Your task to perform on an android device: Check the settings for the Amazon Music app Image 0: 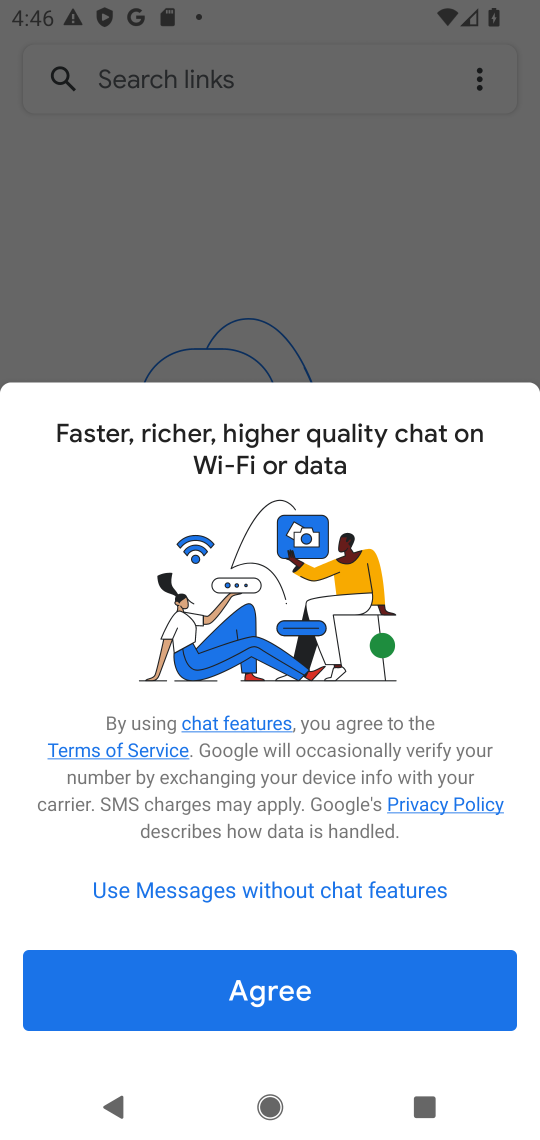
Step 0: press home button
Your task to perform on an android device: Check the settings for the Amazon Music app Image 1: 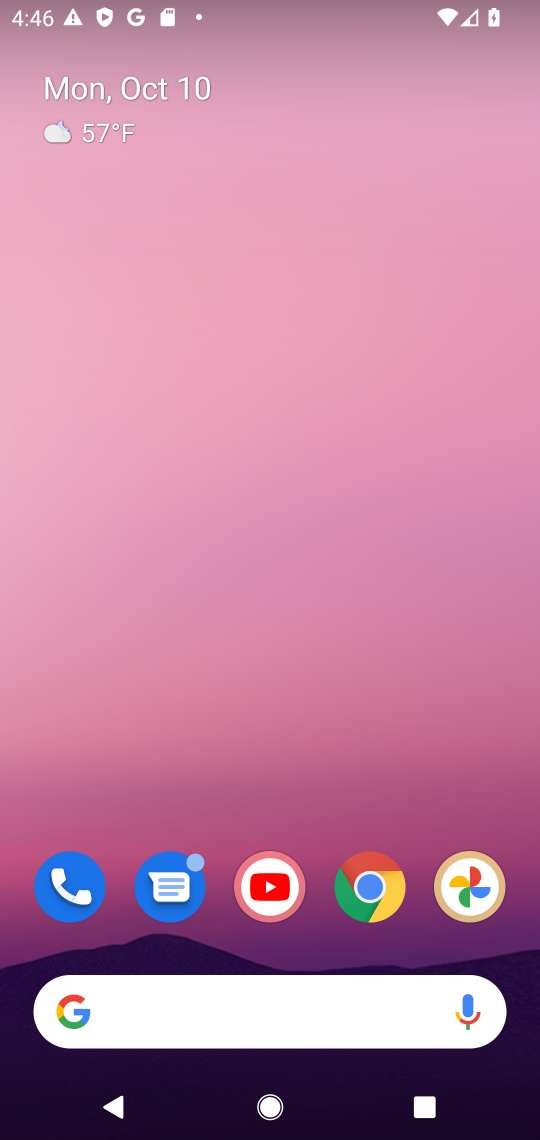
Step 1: drag from (291, 953) to (356, 228)
Your task to perform on an android device: Check the settings for the Amazon Music app Image 2: 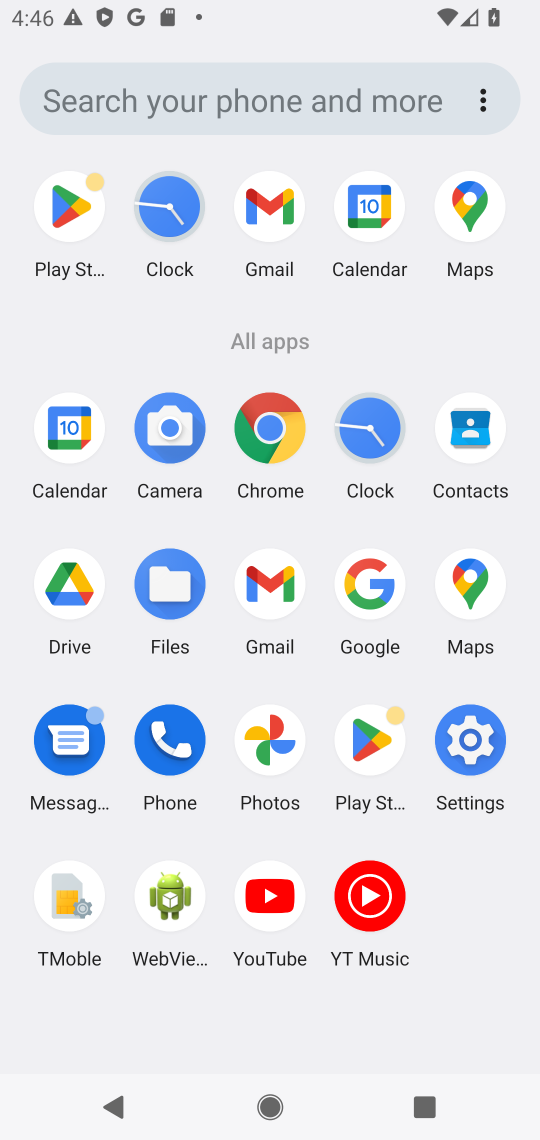
Step 2: click (354, 718)
Your task to perform on an android device: Check the settings for the Amazon Music app Image 3: 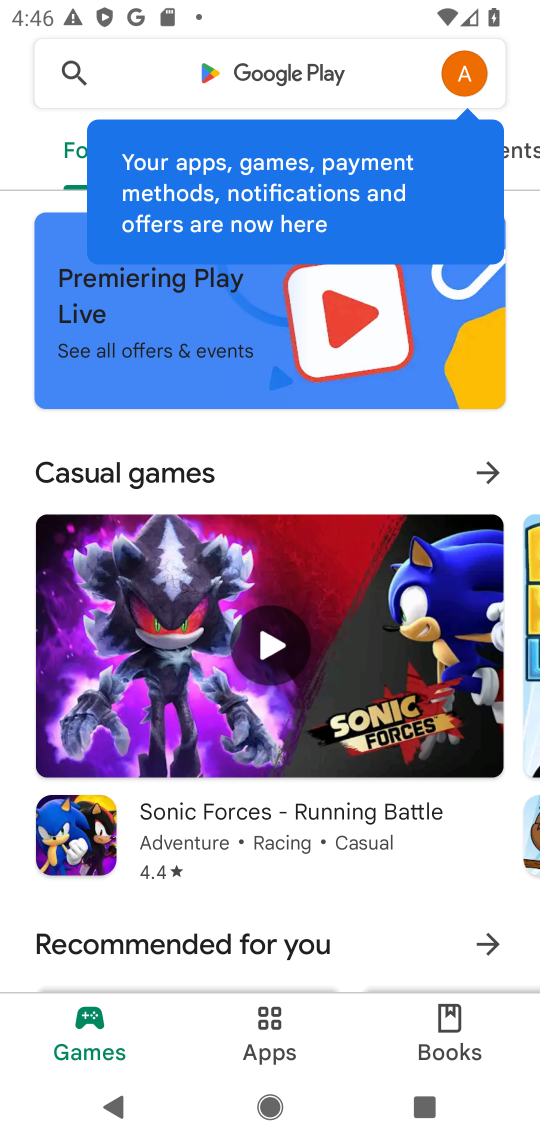
Step 3: click (205, 76)
Your task to perform on an android device: Check the settings for the Amazon Music app Image 4: 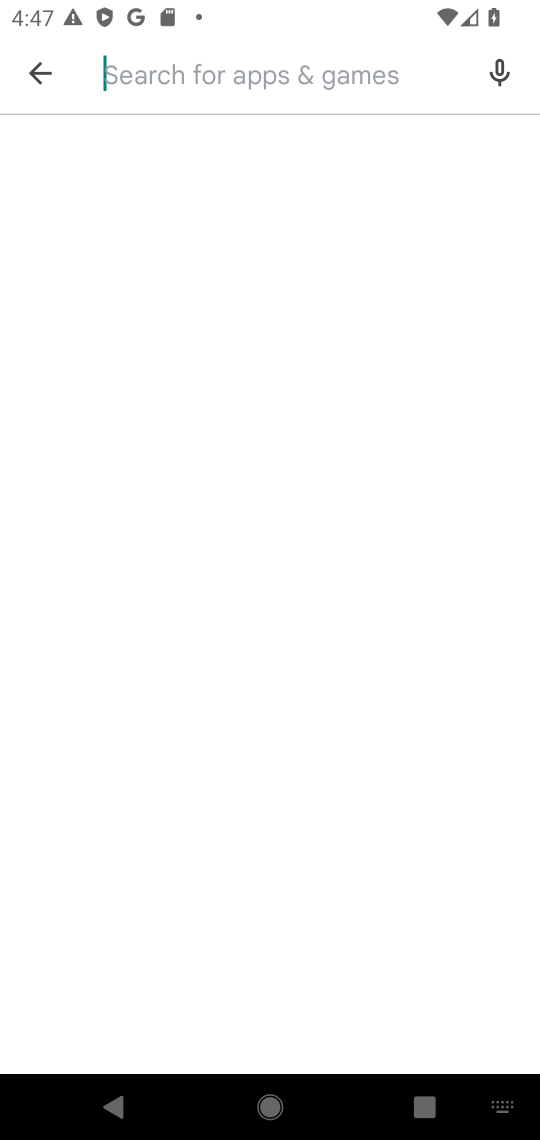
Step 4: type "Amazon Music App"
Your task to perform on an android device: Check the settings for the Amazon Music app Image 5: 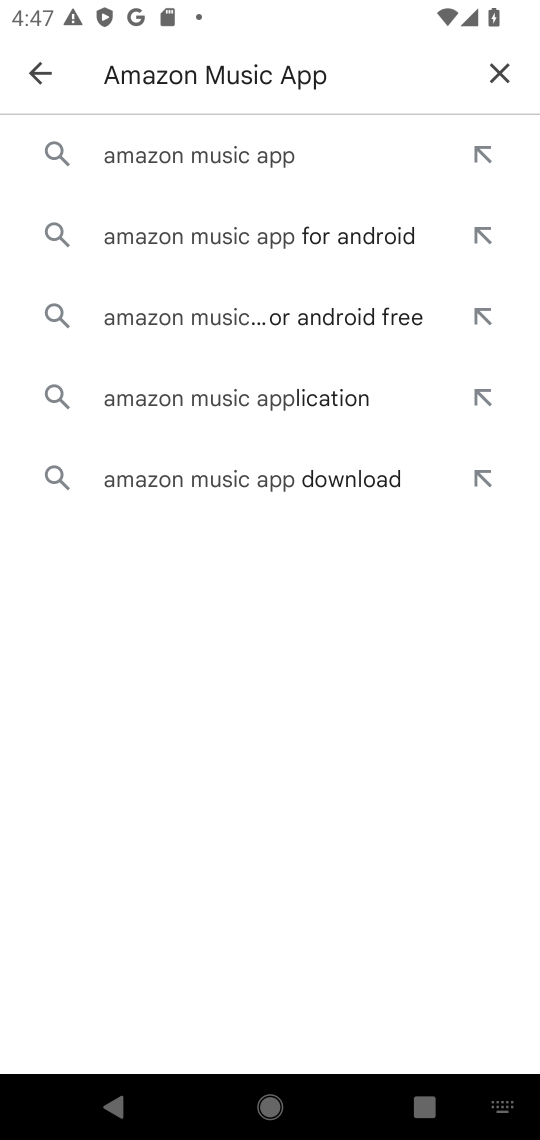
Step 5: click (261, 169)
Your task to perform on an android device: Check the settings for the Amazon Music app Image 6: 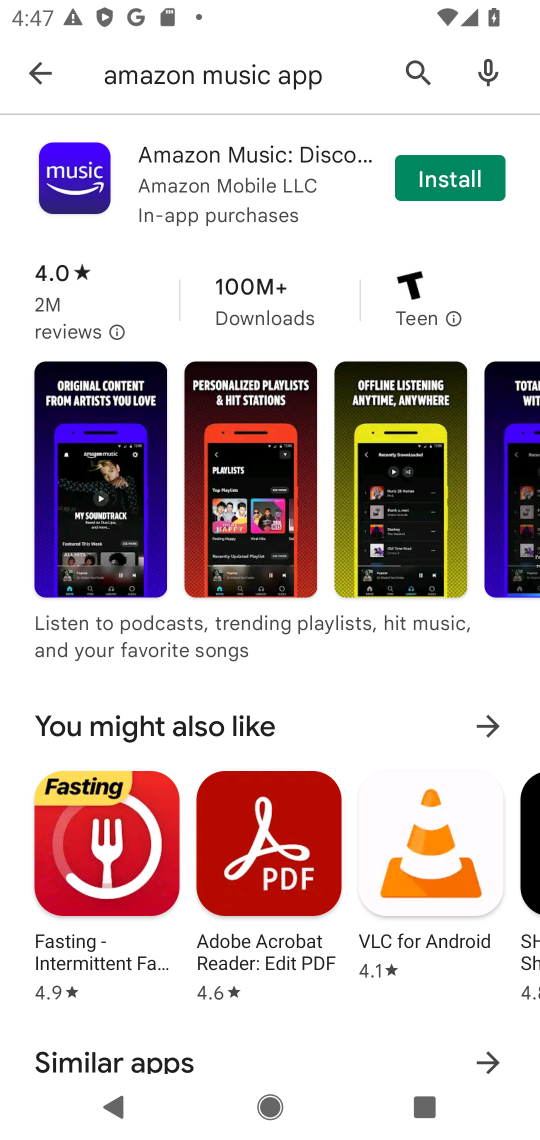
Step 6: task complete